Your task to perform on an android device: set the timer Image 0: 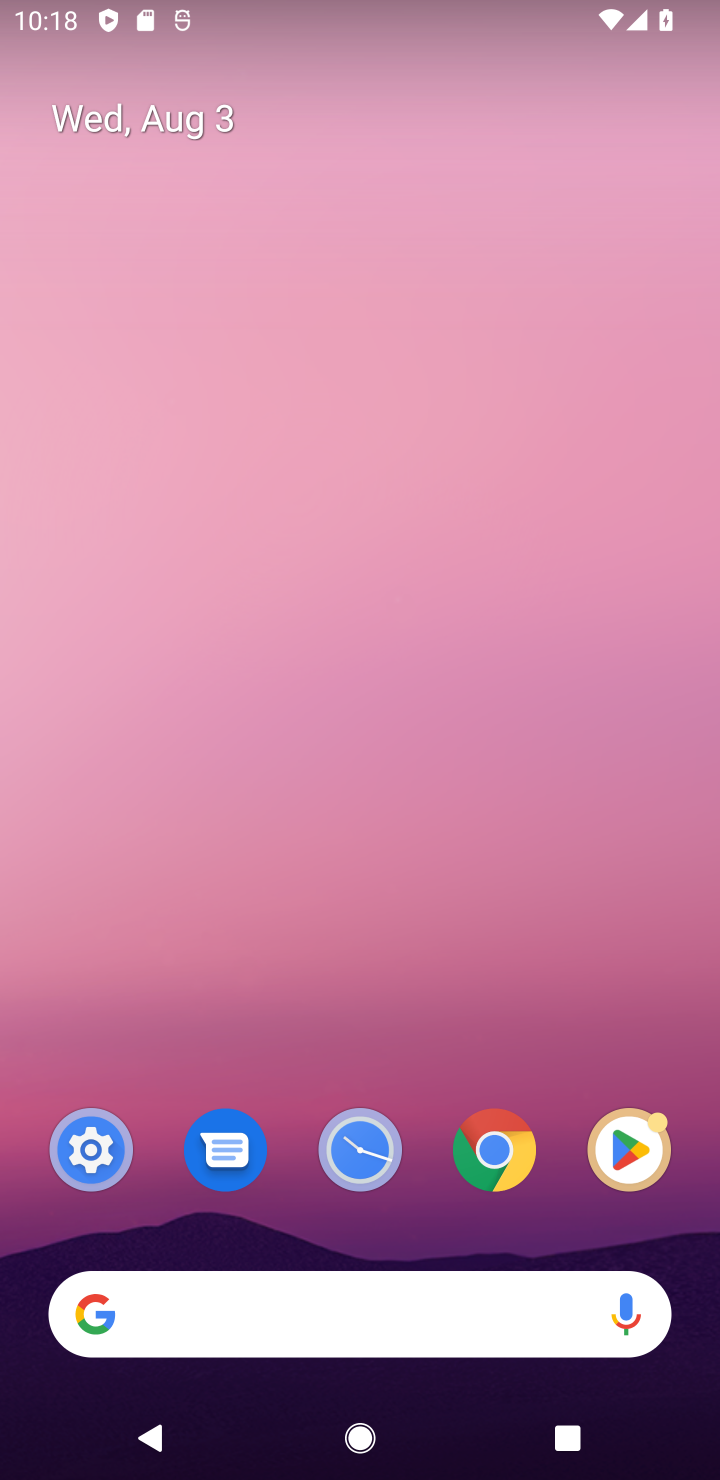
Step 0: drag from (573, 1028) to (543, 305)
Your task to perform on an android device: set the timer Image 1: 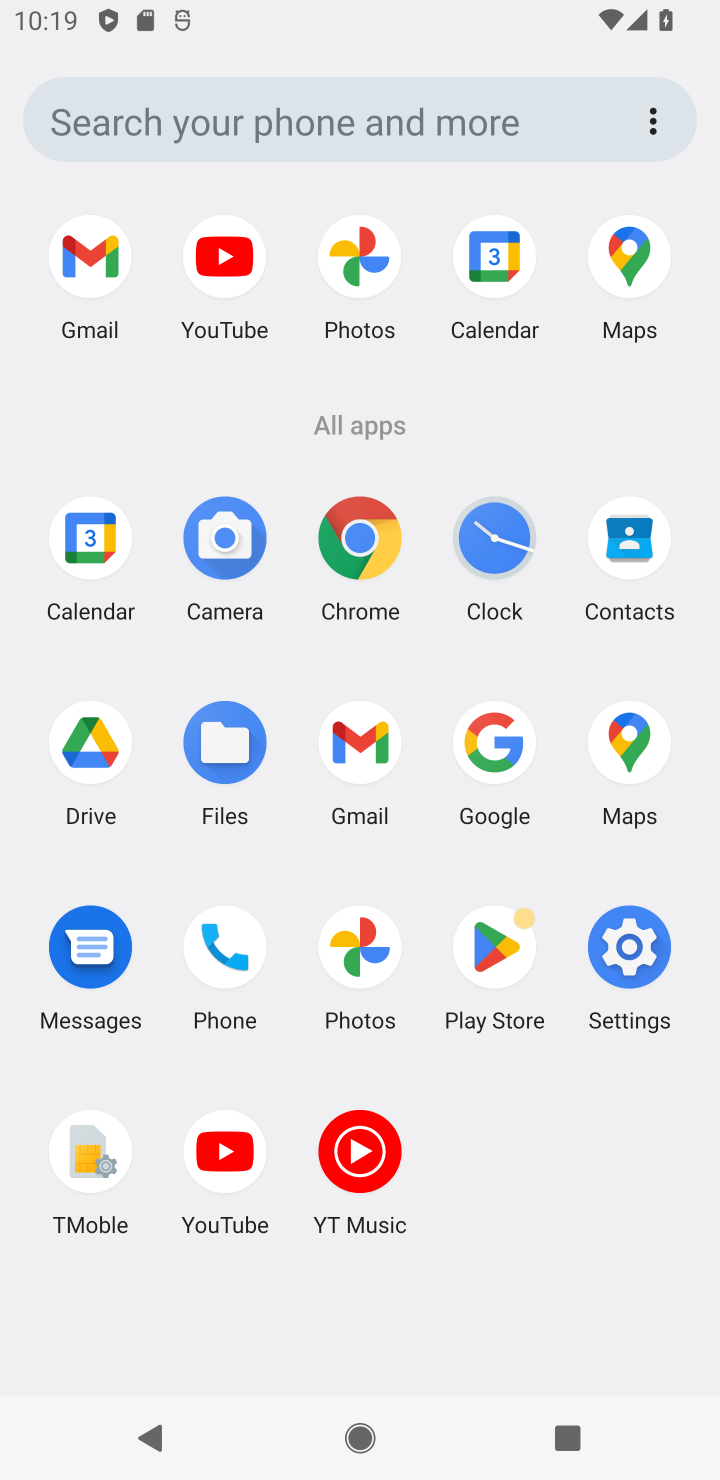
Step 1: click (497, 541)
Your task to perform on an android device: set the timer Image 2: 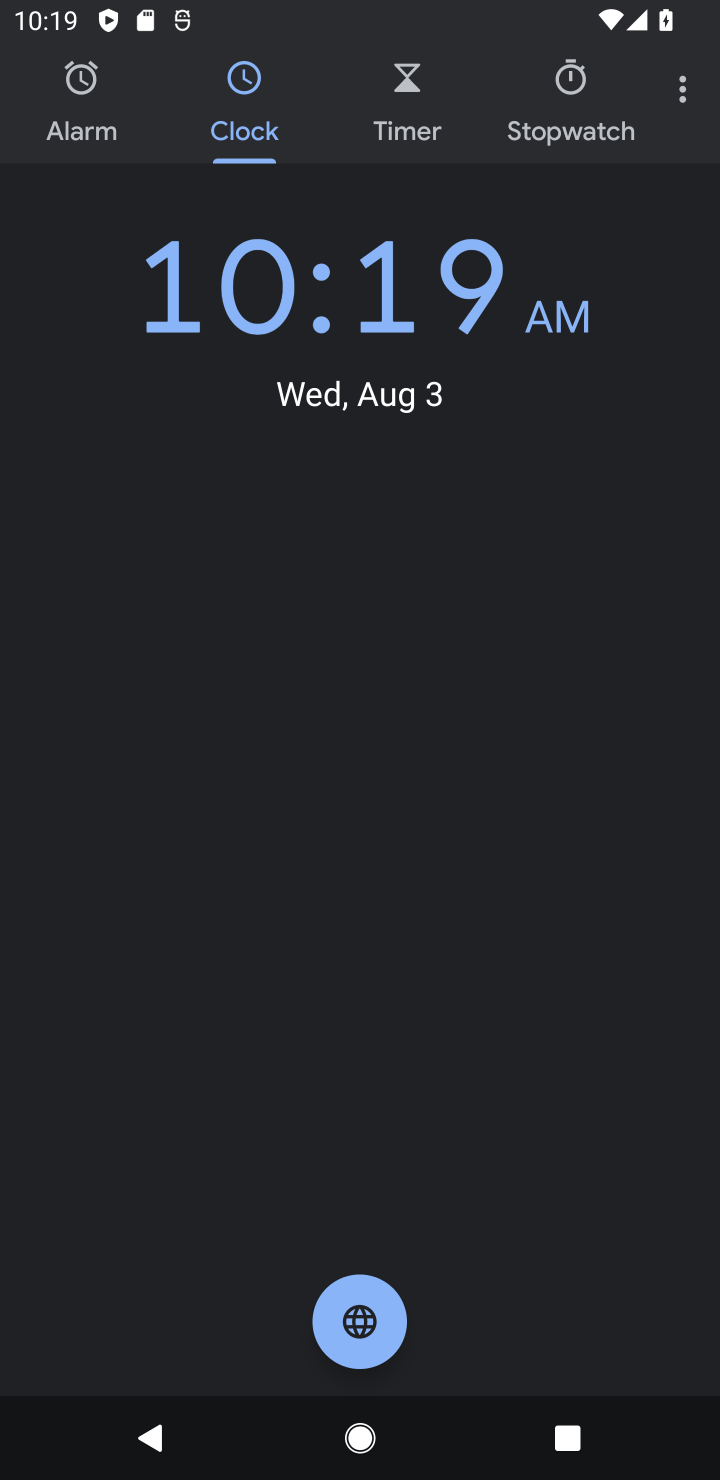
Step 2: click (421, 123)
Your task to perform on an android device: set the timer Image 3: 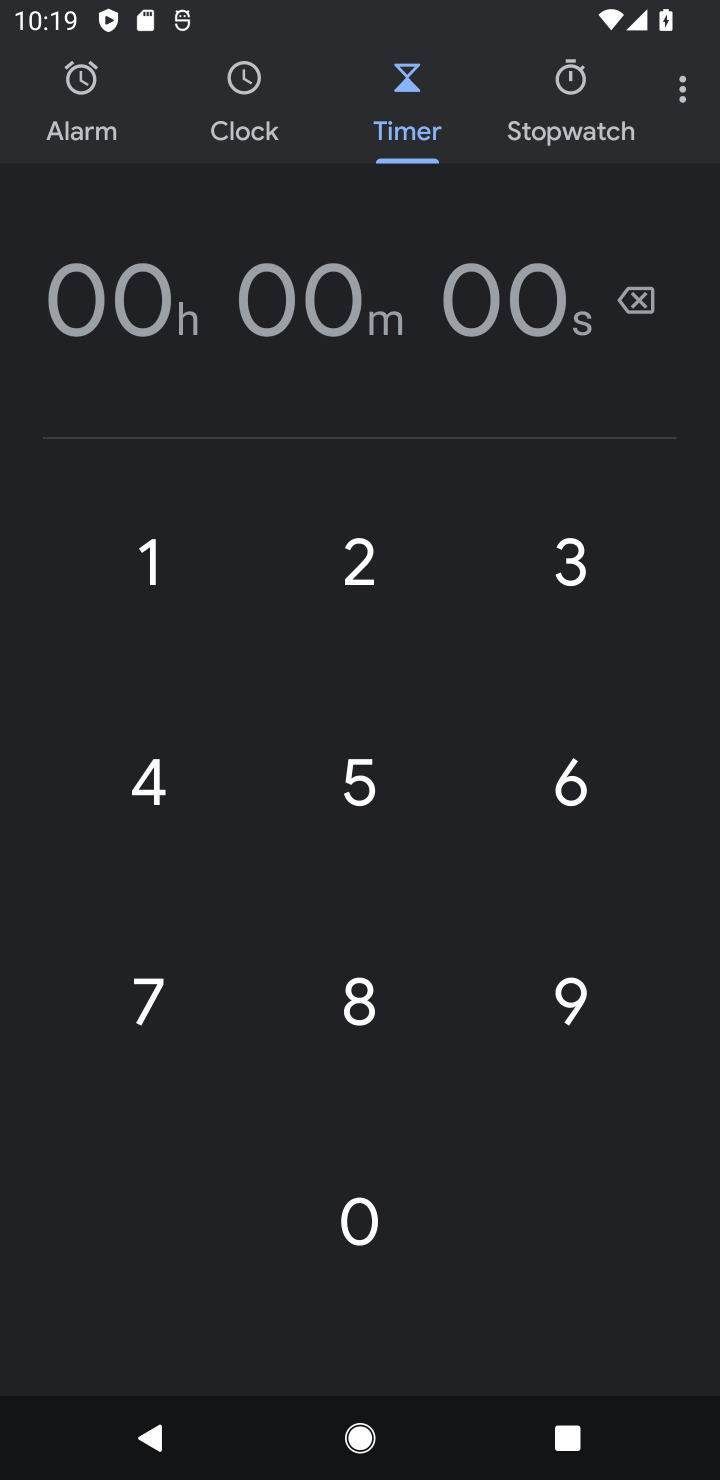
Step 3: click (363, 796)
Your task to perform on an android device: set the timer Image 4: 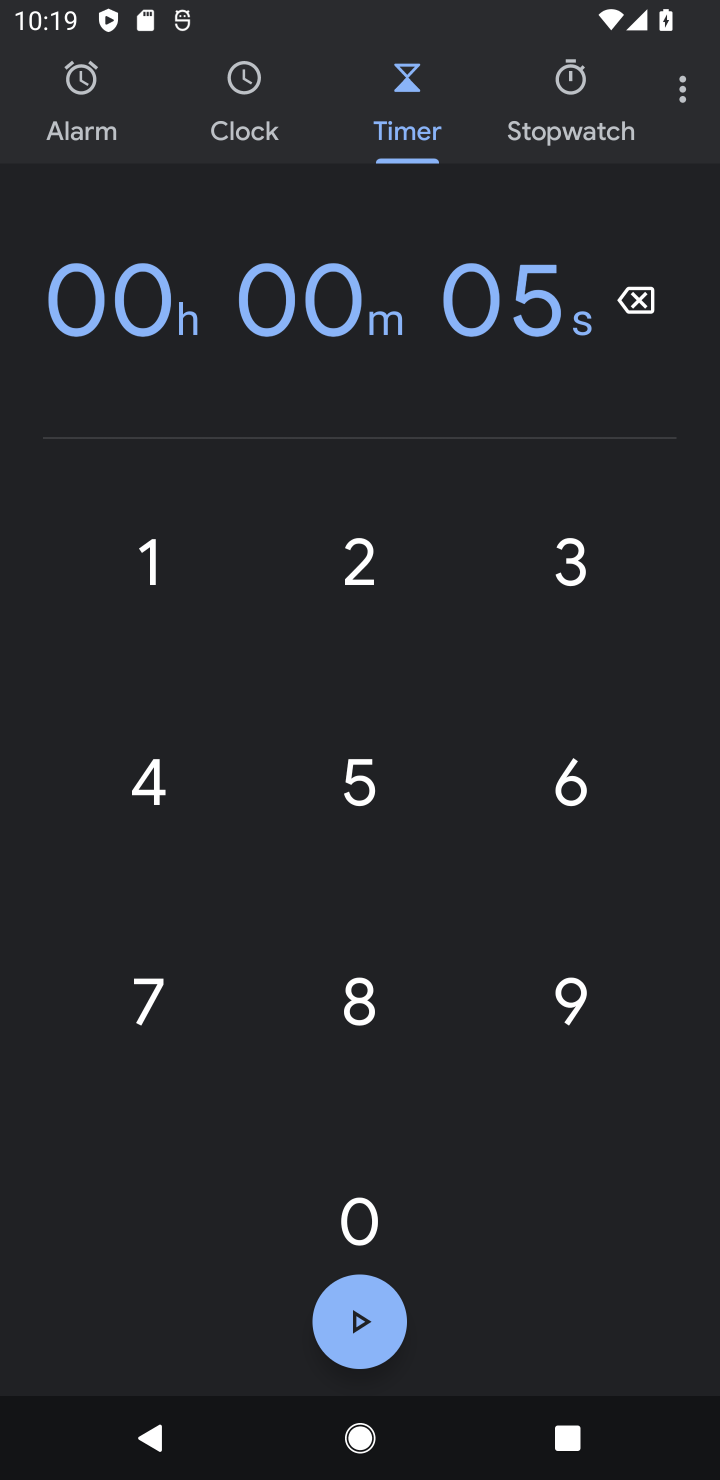
Step 4: task complete